Your task to perform on an android device: open app "Google Duo" Image 0: 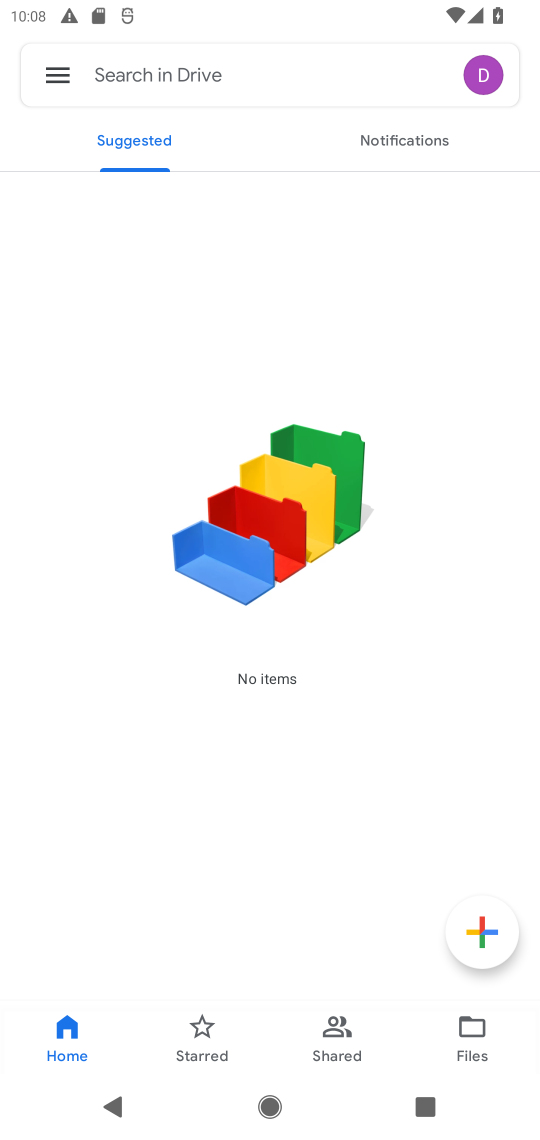
Step 0: press home button
Your task to perform on an android device: open app "Google Duo" Image 1: 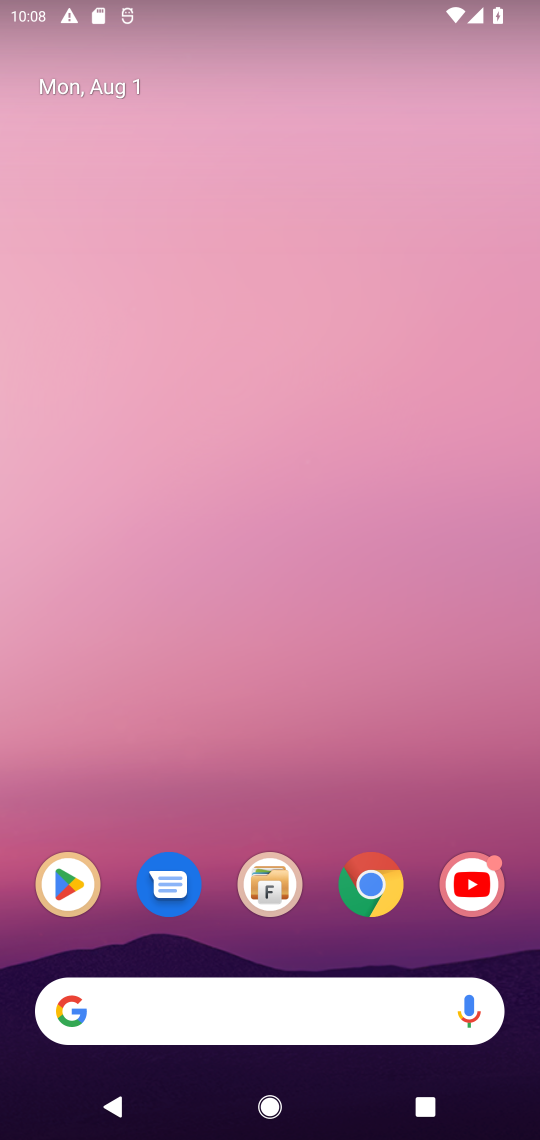
Step 1: click (79, 887)
Your task to perform on an android device: open app "Google Duo" Image 2: 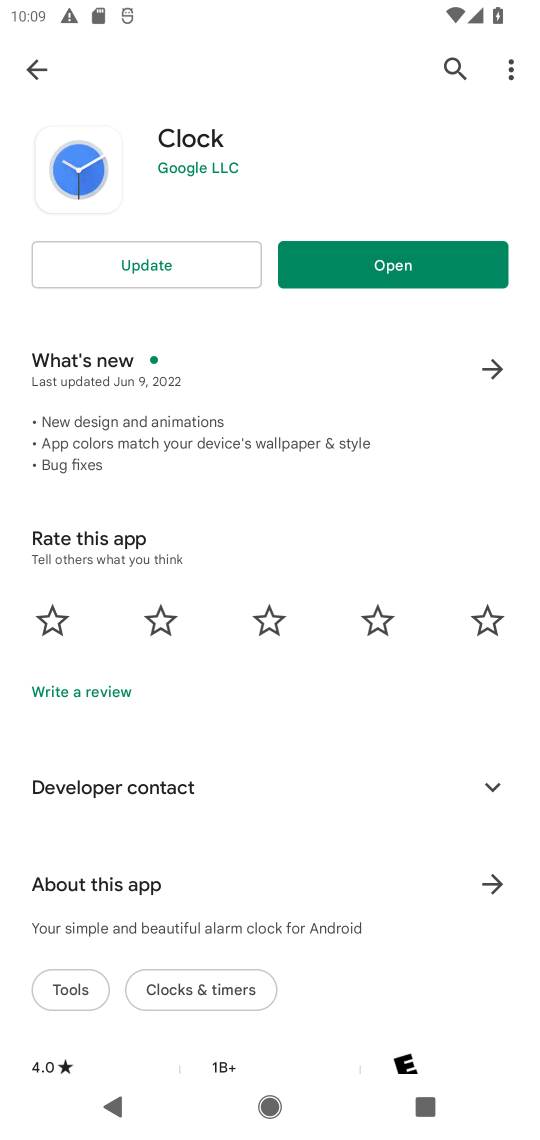
Step 2: click (452, 61)
Your task to perform on an android device: open app "Google Duo" Image 3: 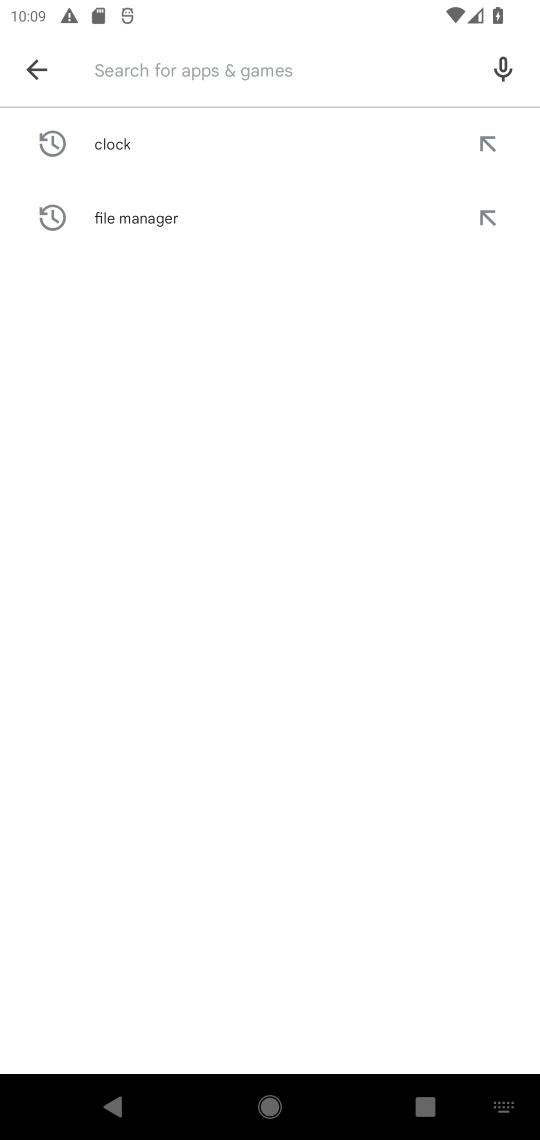
Step 3: type "google duo"
Your task to perform on an android device: open app "Google Duo" Image 4: 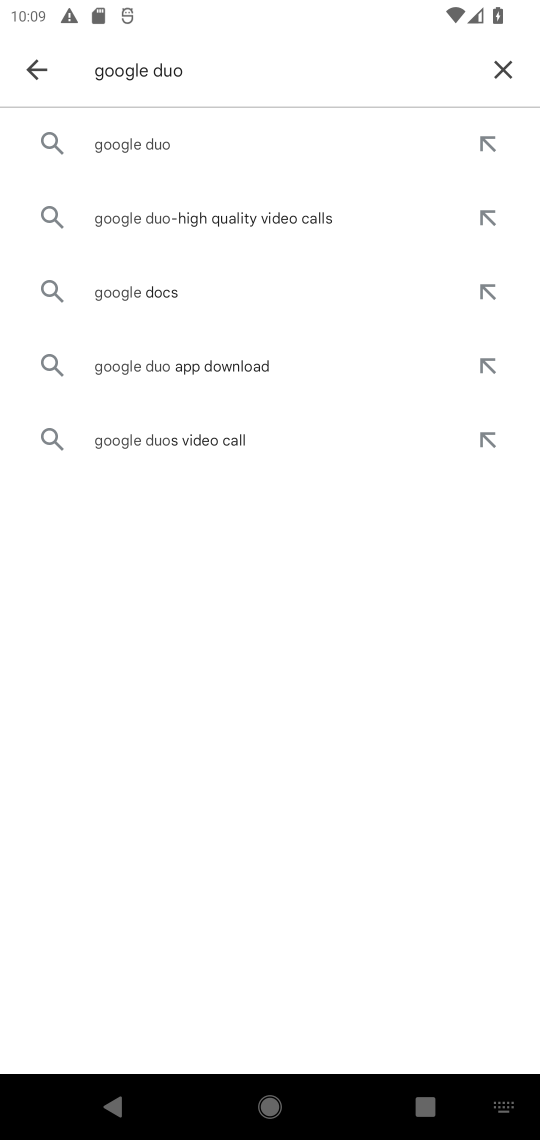
Step 4: click (177, 149)
Your task to perform on an android device: open app "Google Duo" Image 5: 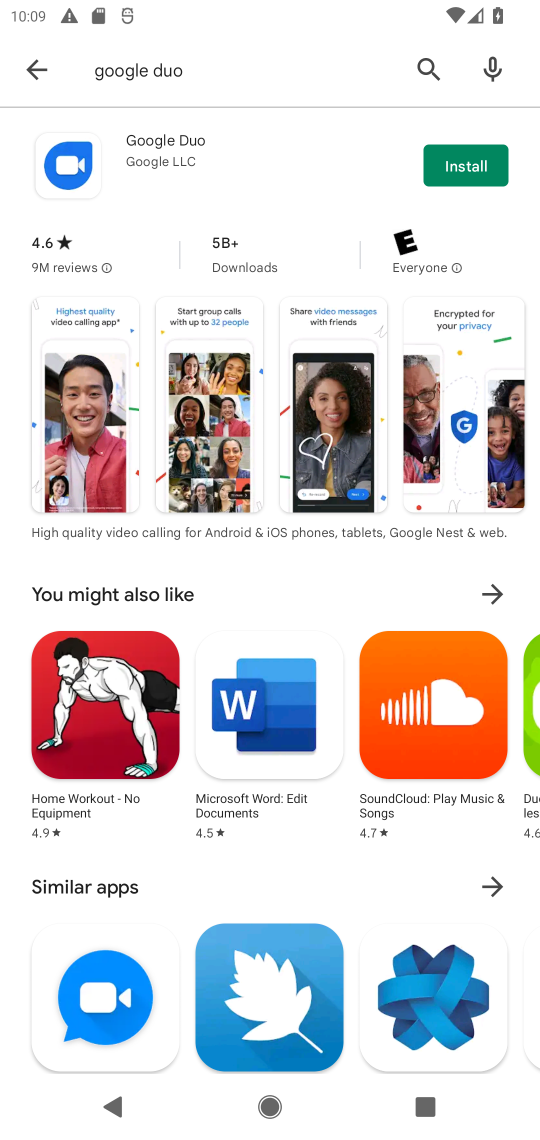
Step 5: click (167, 136)
Your task to perform on an android device: open app "Google Duo" Image 6: 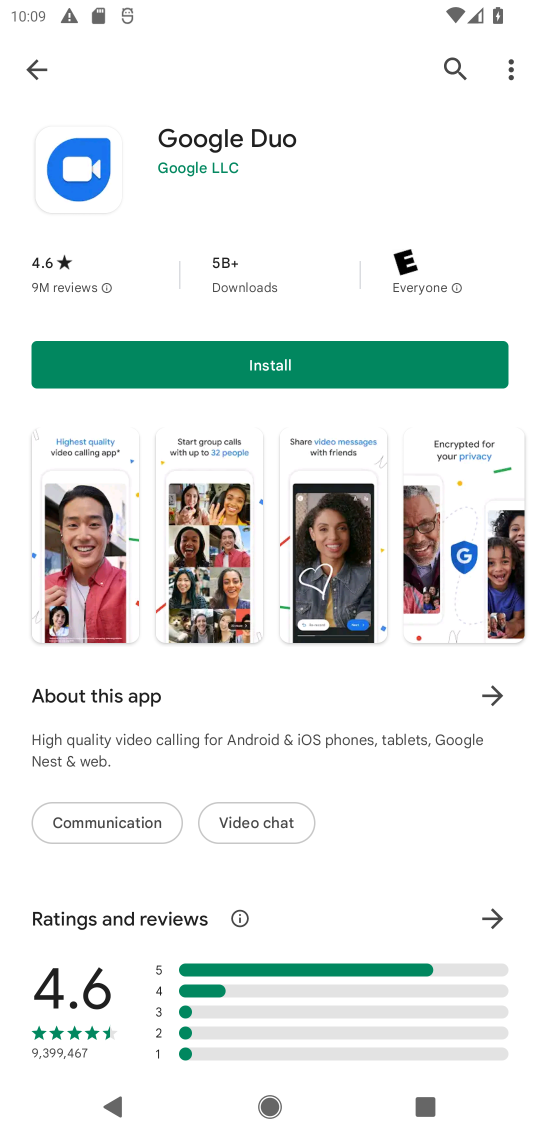
Step 6: task complete